Your task to perform on an android device: Show the shopping cart on ebay.com. Search for "razer deathadder" on ebay.com, select the first entry, and add it to the cart. Image 0: 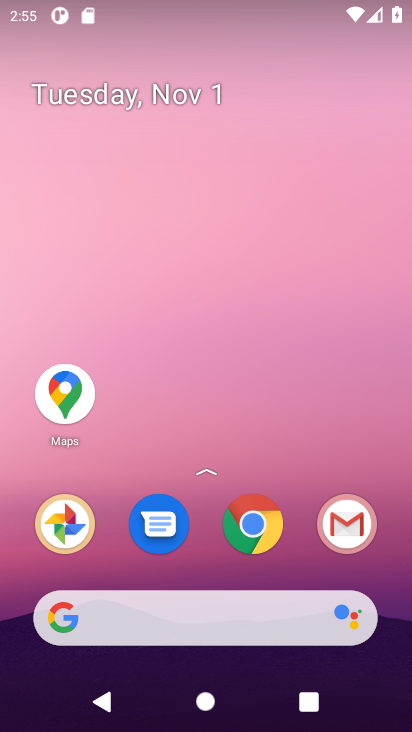
Step 0: click (249, 523)
Your task to perform on an android device: Show the shopping cart on ebay.com. Search for "razer deathadder" on ebay.com, select the first entry, and add it to the cart. Image 1: 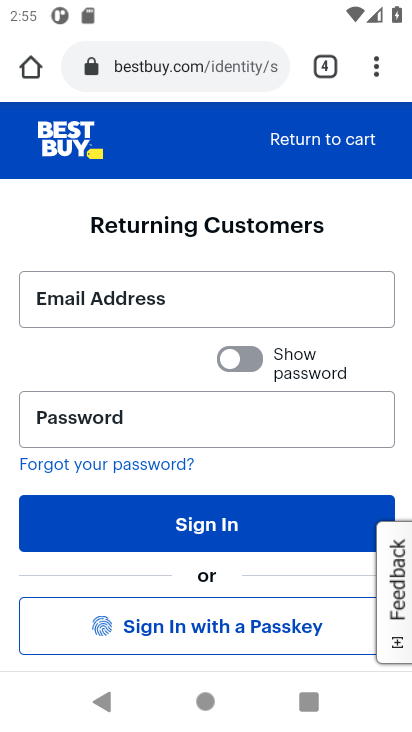
Step 1: click (183, 43)
Your task to perform on an android device: Show the shopping cart on ebay.com. Search for "razer deathadder" on ebay.com, select the first entry, and add it to the cart. Image 2: 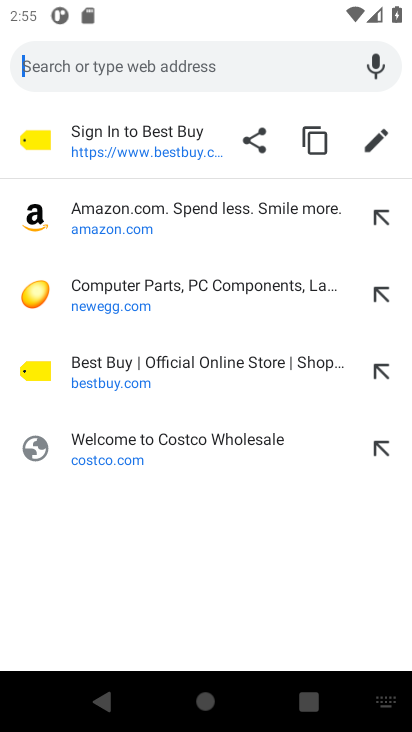
Step 2: type "ebay.com"
Your task to perform on an android device: Show the shopping cart on ebay.com. Search for "razer deathadder" on ebay.com, select the first entry, and add it to the cart. Image 3: 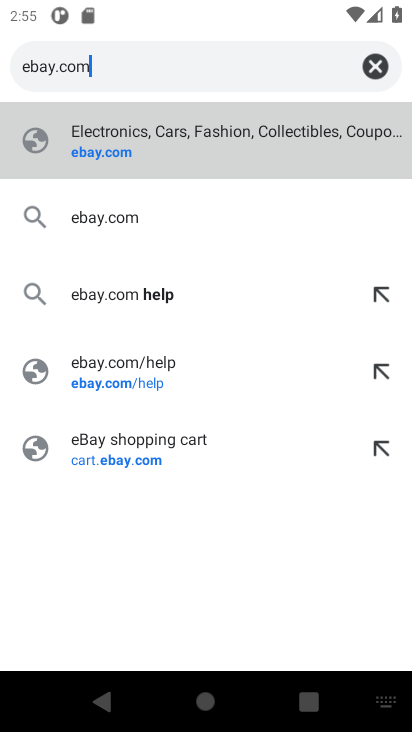
Step 3: click (103, 131)
Your task to perform on an android device: Show the shopping cart on ebay.com. Search for "razer deathadder" on ebay.com, select the first entry, and add it to the cart. Image 4: 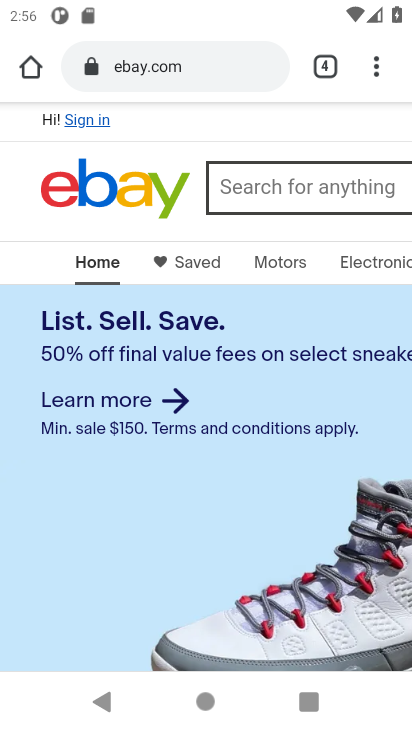
Step 4: click (282, 185)
Your task to perform on an android device: Show the shopping cart on ebay.com. Search for "razer deathadder" on ebay.com, select the first entry, and add it to the cart. Image 5: 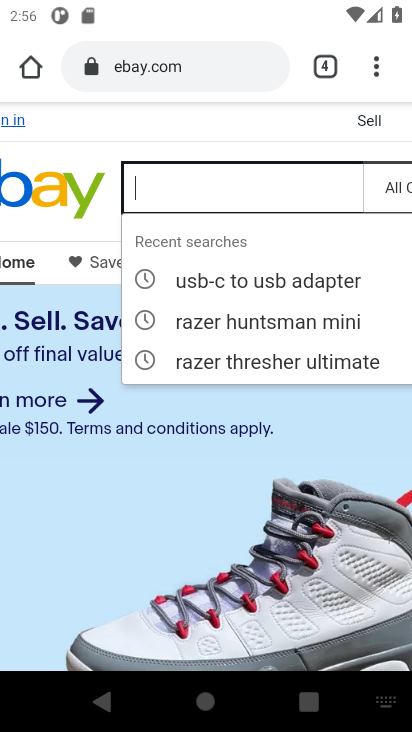
Step 5: type "razer deathadder"
Your task to perform on an android device: Show the shopping cart on ebay.com. Search for "razer deathadder" on ebay.com, select the first entry, and add it to the cart. Image 6: 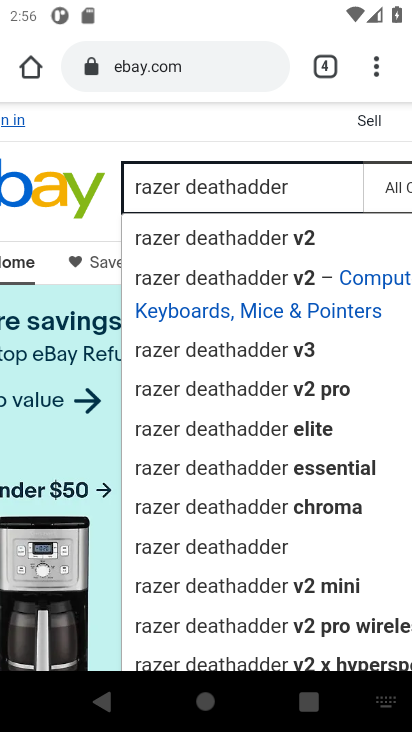
Step 6: click (201, 230)
Your task to perform on an android device: Show the shopping cart on ebay.com. Search for "razer deathadder" on ebay.com, select the first entry, and add it to the cart. Image 7: 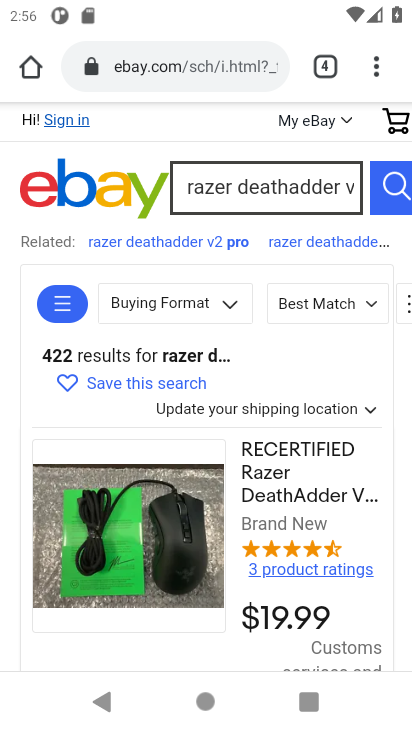
Step 7: drag from (232, 625) to (225, 435)
Your task to perform on an android device: Show the shopping cart on ebay.com. Search for "razer deathadder" on ebay.com, select the first entry, and add it to the cart. Image 8: 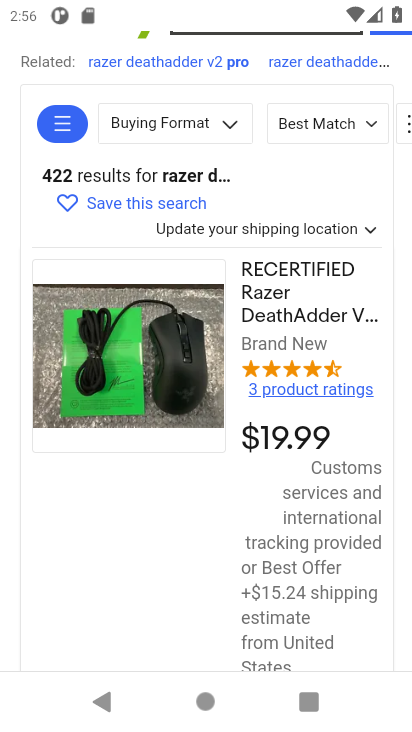
Step 8: drag from (231, 581) to (227, 398)
Your task to perform on an android device: Show the shopping cart on ebay.com. Search for "razer deathadder" on ebay.com, select the first entry, and add it to the cart. Image 9: 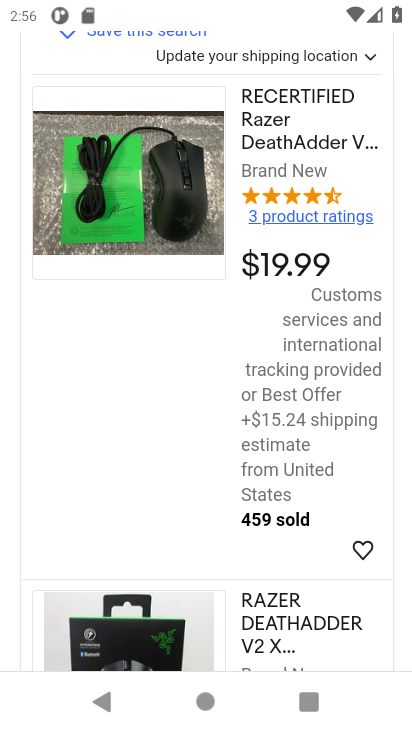
Step 9: drag from (229, 609) to (220, 287)
Your task to perform on an android device: Show the shopping cart on ebay.com. Search for "razer deathadder" on ebay.com, select the first entry, and add it to the cart. Image 10: 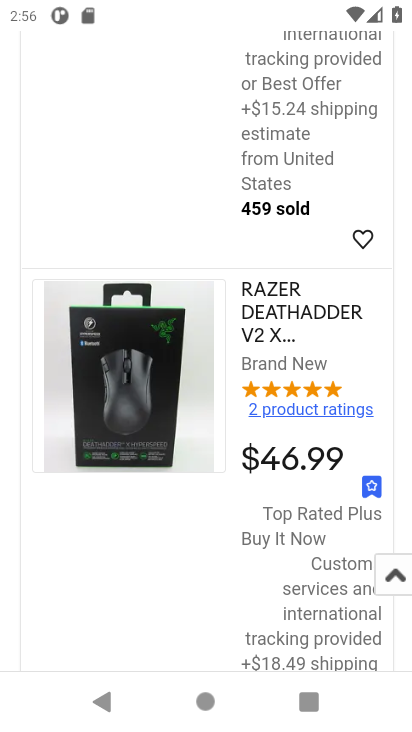
Step 10: drag from (258, 513) to (241, 368)
Your task to perform on an android device: Show the shopping cart on ebay.com. Search for "razer deathadder" on ebay.com, select the first entry, and add it to the cart. Image 11: 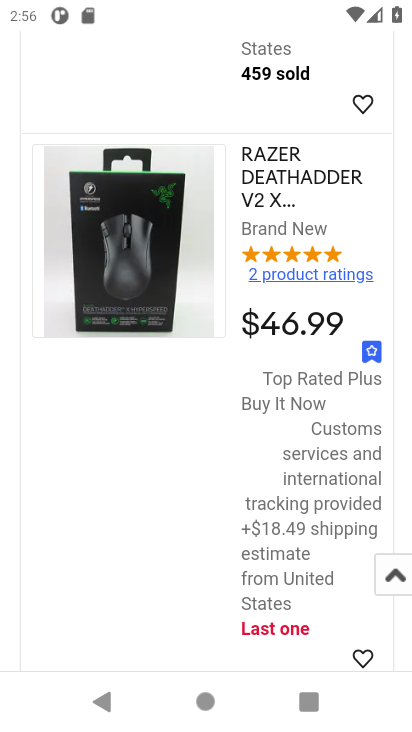
Step 11: click (274, 169)
Your task to perform on an android device: Show the shopping cart on ebay.com. Search for "razer deathadder" on ebay.com, select the first entry, and add it to the cart. Image 12: 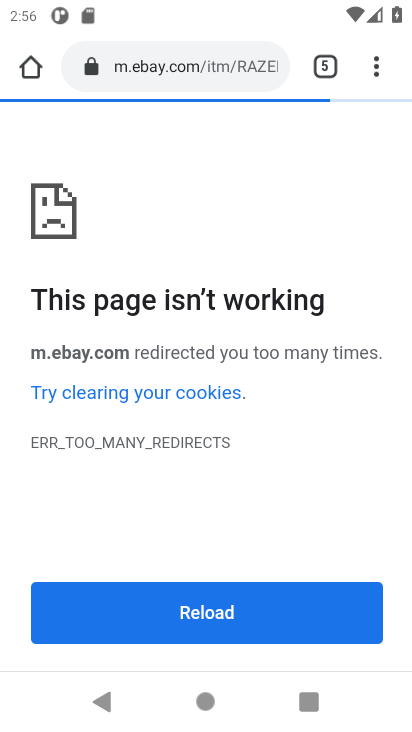
Step 12: task complete